Your task to perform on an android device: turn on the 24-hour format for clock Image 0: 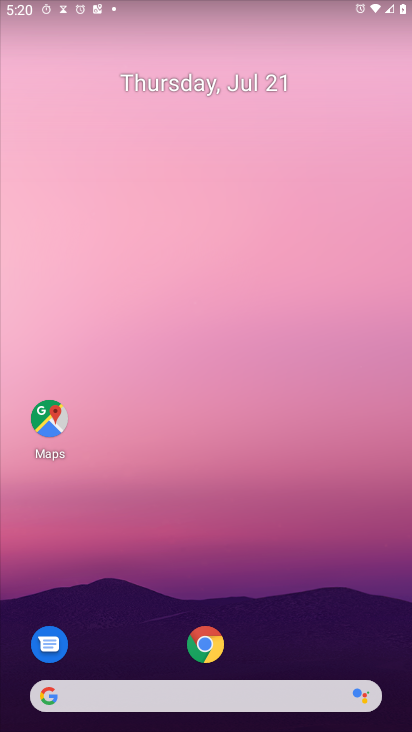
Step 0: press home button
Your task to perform on an android device: turn on the 24-hour format for clock Image 1: 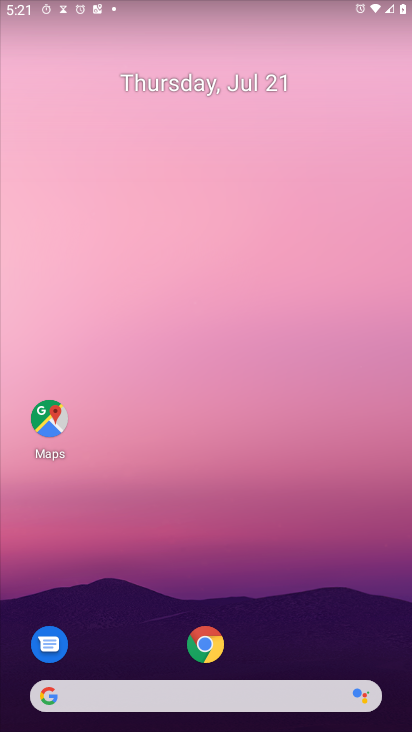
Step 1: drag from (314, 639) to (283, 162)
Your task to perform on an android device: turn on the 24-hour format for clock Image 2: 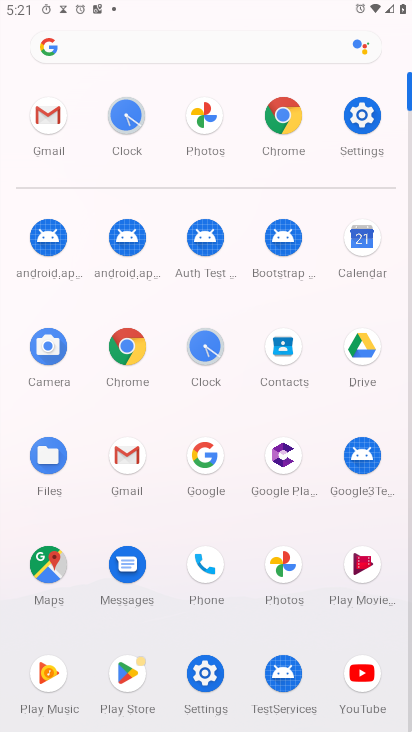
Step 2: click (206, 346)
Your task to perform on an android device: turn on the 24-hour format for clock Image 3: 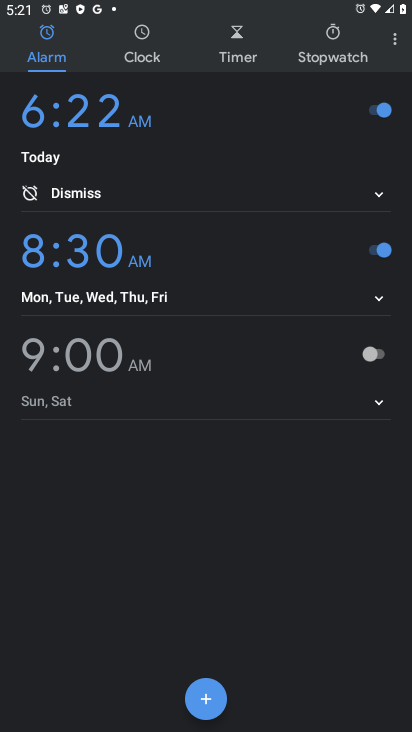
Step 3: click (397, 29)
Your task to perform on an android device: turn on the 24-hour format for clock Image 4: 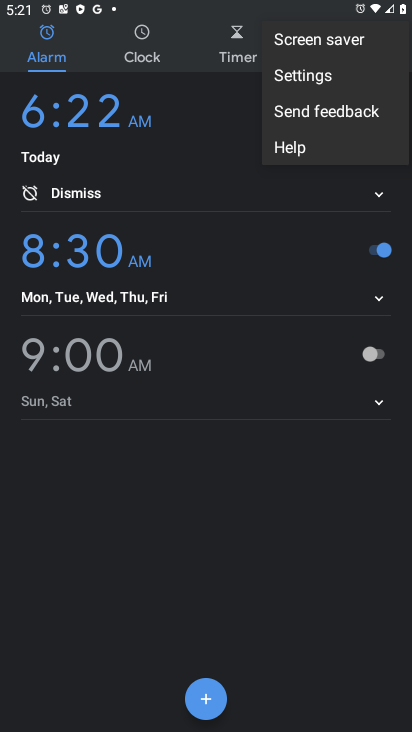
Step 4: click (342, 71)
Your task to perform on an android device: turn on the 24-hour format for clock Image 5: 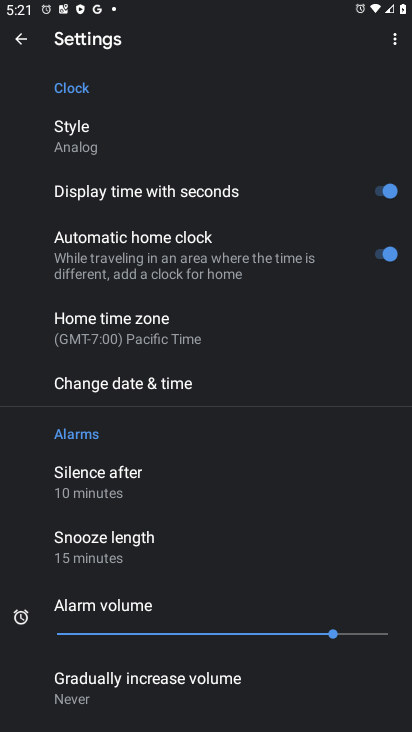
Step 5: click (200, 386)
Your task to perform on an android device: turn on the 24-hour format for clock Image 6: 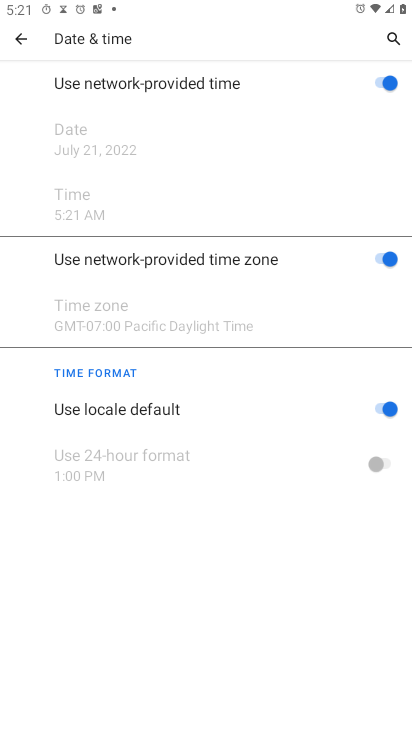
Step 6: click (384, 404)
Your task to perform on an android device: turn on the 24-hour format for clock Image 7: 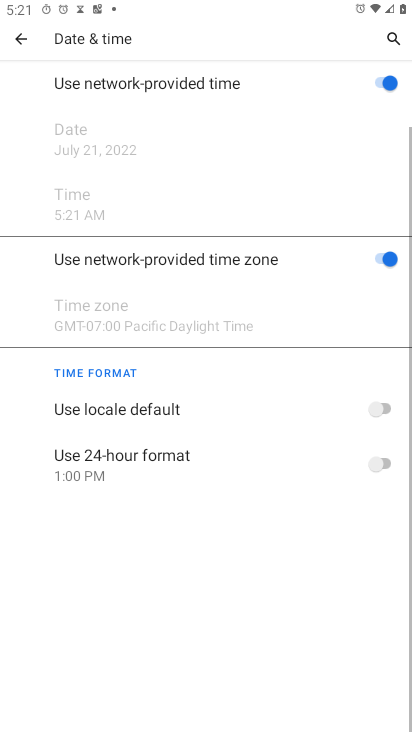
Step 7: click (386, 453)
Your task to perform on an android device: turn on the 24-hour format for clock Image 8: 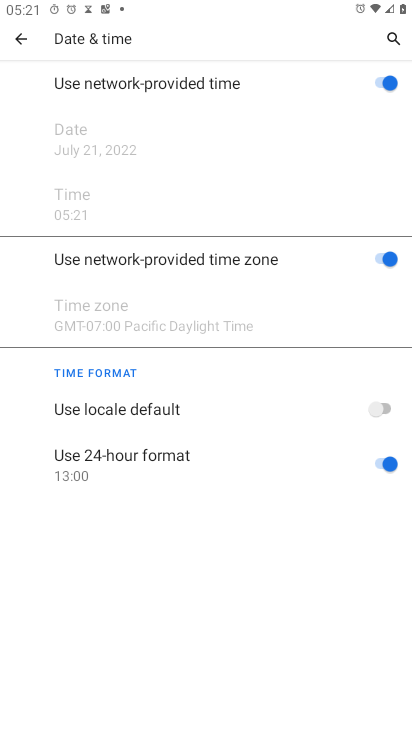
Step 8: task complete